Your task to perform on an android device: Play the last video I watched on Youtube Image 0: 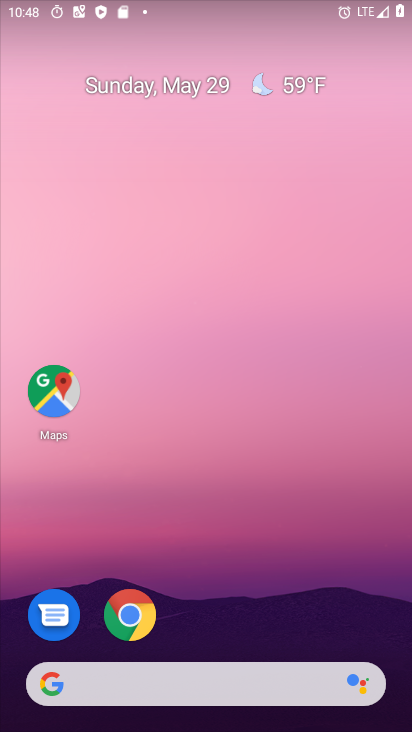
Step 0: drag from (231, 302) to (268, 62)
Your task to perform on an android device: Play the last video I watched on Youtube Image 1: 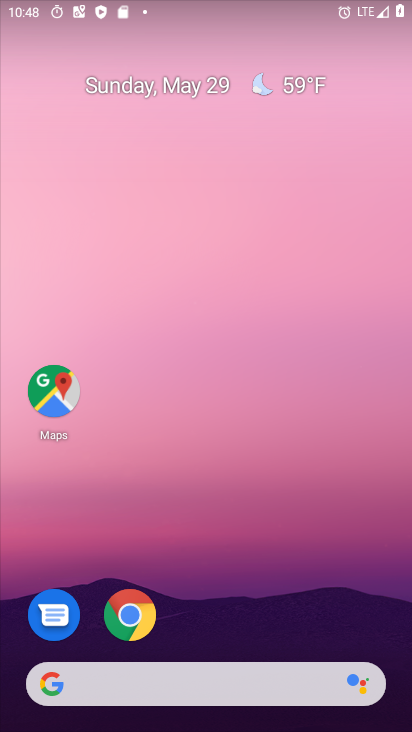
Step 1: drag from (287, 523) to (327, 10)
Your task to perform on an android device: Play the last video I watched on Youtube Image 2: 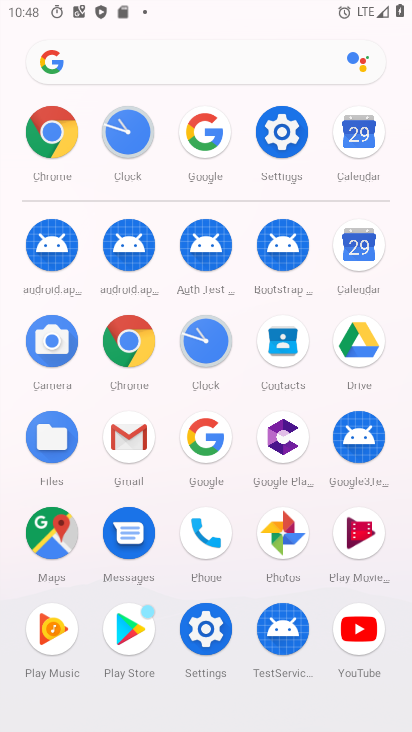
Step 2: click (359, 622)
Your task to perform on an android device: Play the last video I watched on Youtube Image 3: 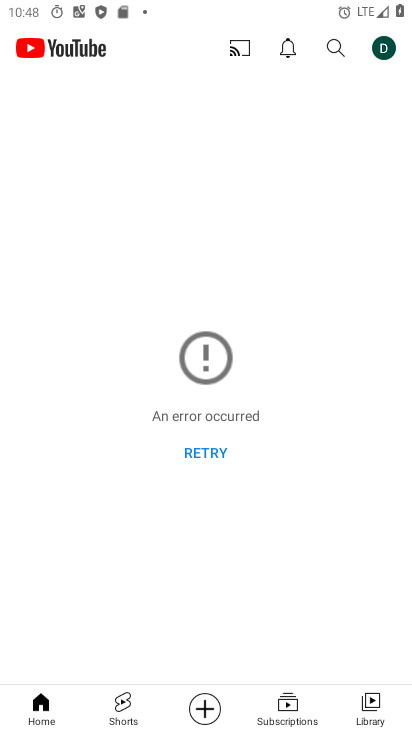
Step 3: click (334, 44)
Your task to perform on an android device: Play the last video I watched on Youtube Image 4: 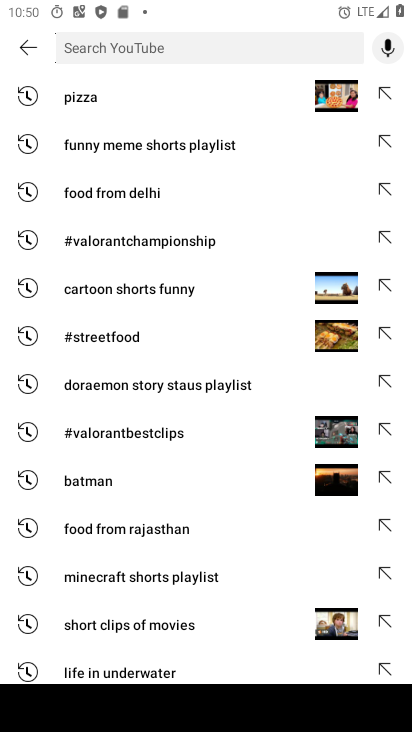
Step 4: click (81, 98)
Your task to perform on an android device: Play the last video I watched on Youtube Image 5: 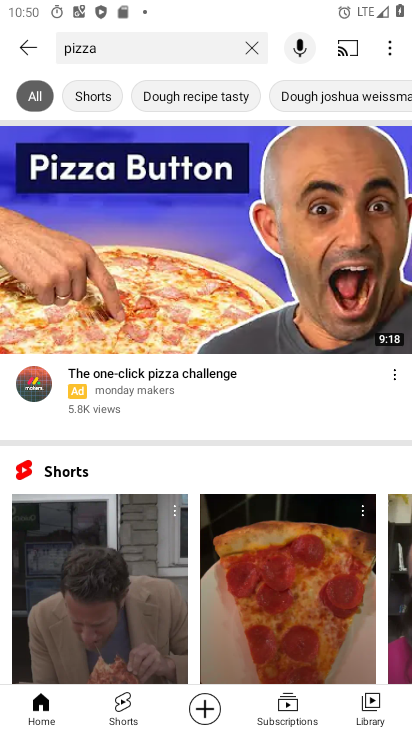
Step 5: click (221, 260)
Your task to perform on an android device: Play the last video I watched on Youtube Image 6: 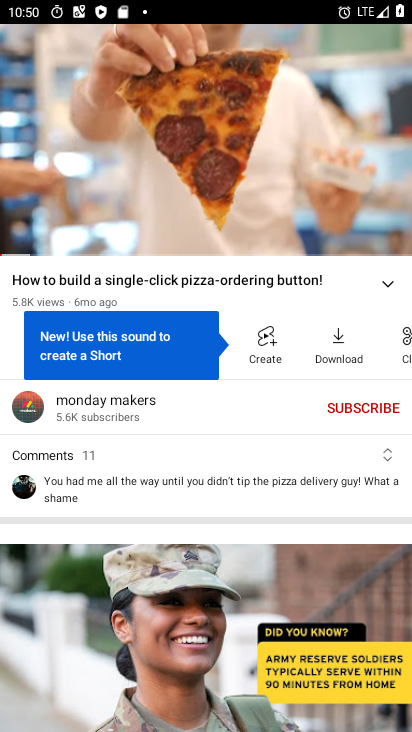
Step 6: task complete